Your task to perform on an android device: Search for seafood restaurants on Google Maps Image 0: 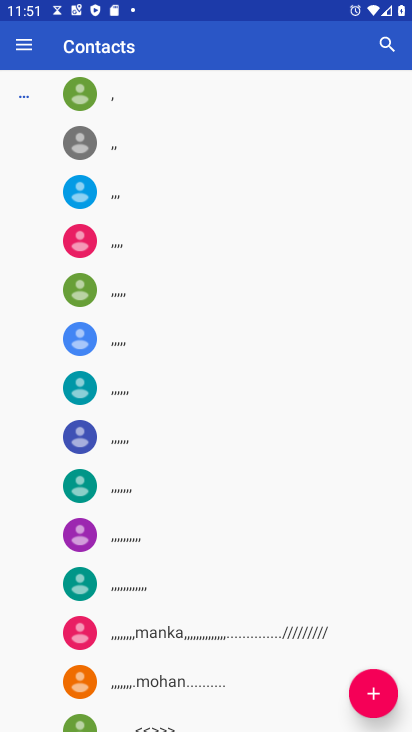
Step 0: press home button
Your task to perform on an android device: Search for seafood restaurants on Google Maps Image 1: 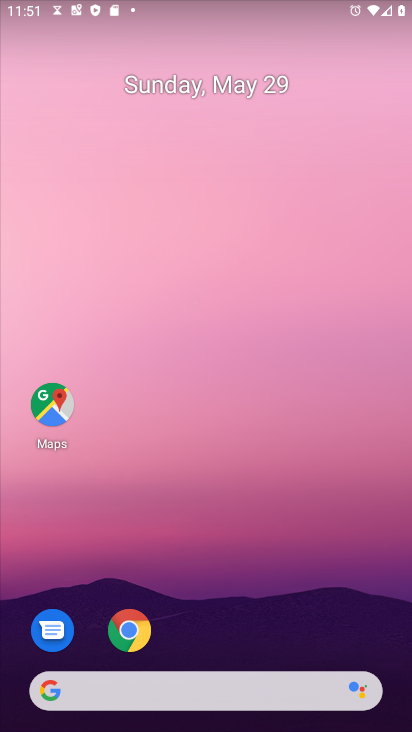
Step 1: click (66, 421)
Your task to perform on an android device: Search for seafood restaurants on Google Maps Image 2: 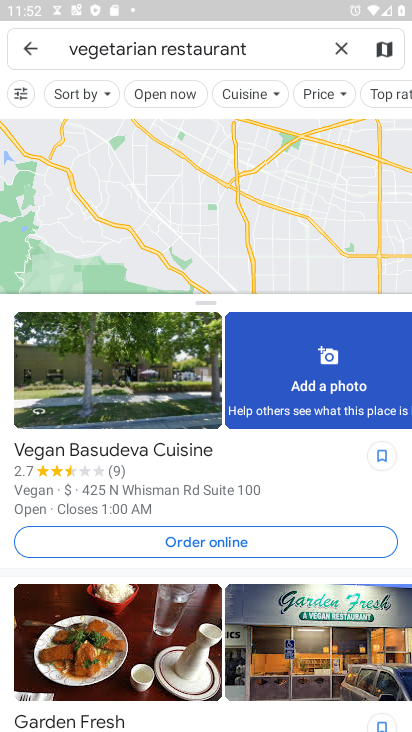
Step 2: click (338, 42)
Your task to perform on an android device: Search for seafood restaurants on Google Maps Image 3: 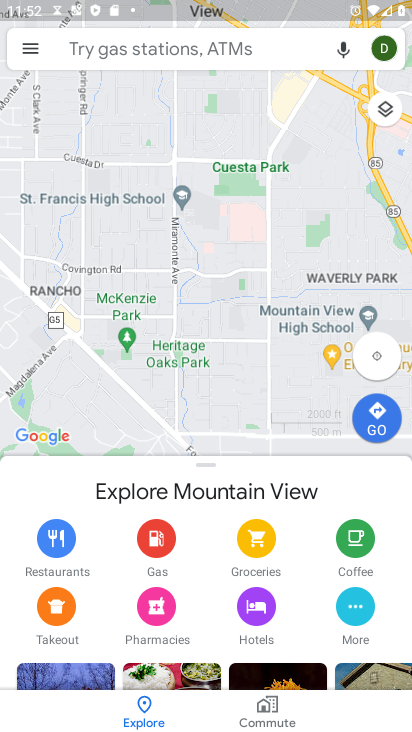
Step 3: click (207, 46)
Your task to perform on an android device: Search for seafood restaurants on Google Maps Image 4: 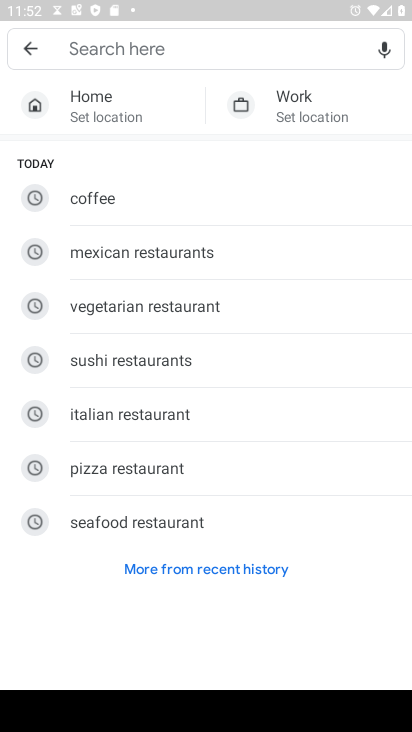
Step 4: click (91, 512)
Your task to perform on an android device: Search for seafood restaurants on Google Maps Image 5: 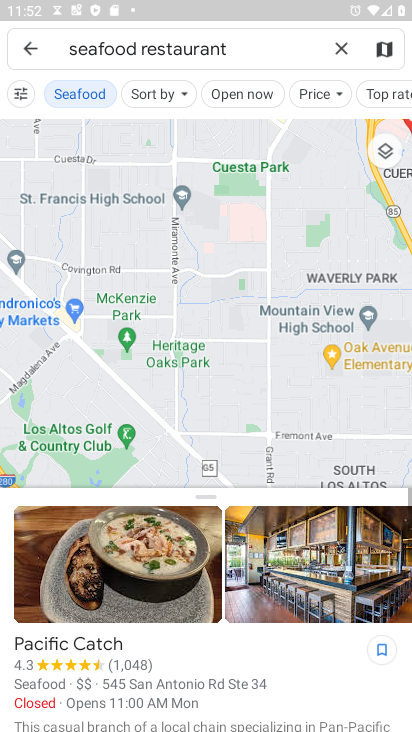
Step 5: click (114, 423)
Your task to perform on an android device: Search for seafood restaurants on Google Maps Image 6: 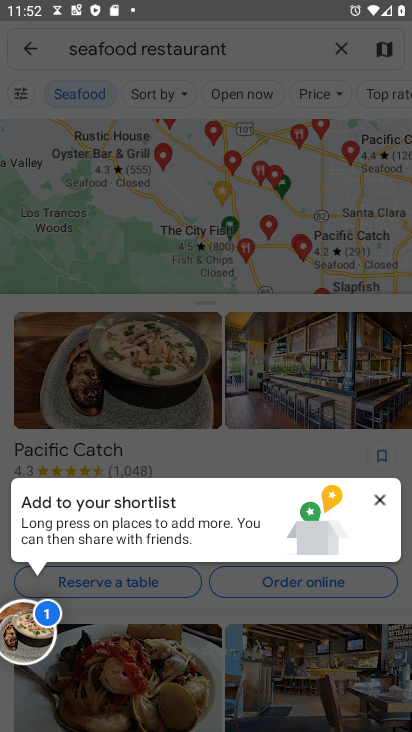
Step 6: task complete